Your task to perform on an android device: open chrome privacy settings Image 0: 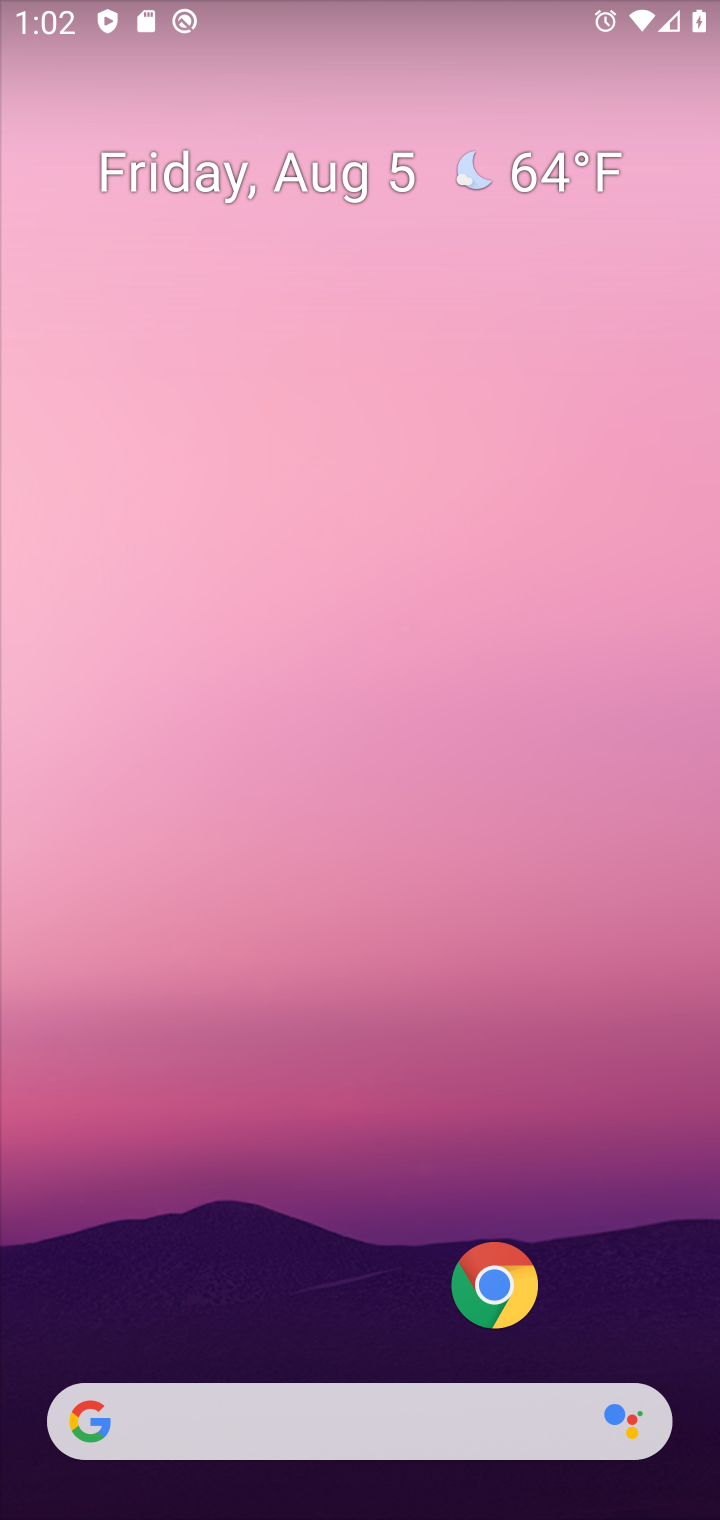
Step 0: press home button
Your task to perform on an android device: open chrome privacy settings Image 1: 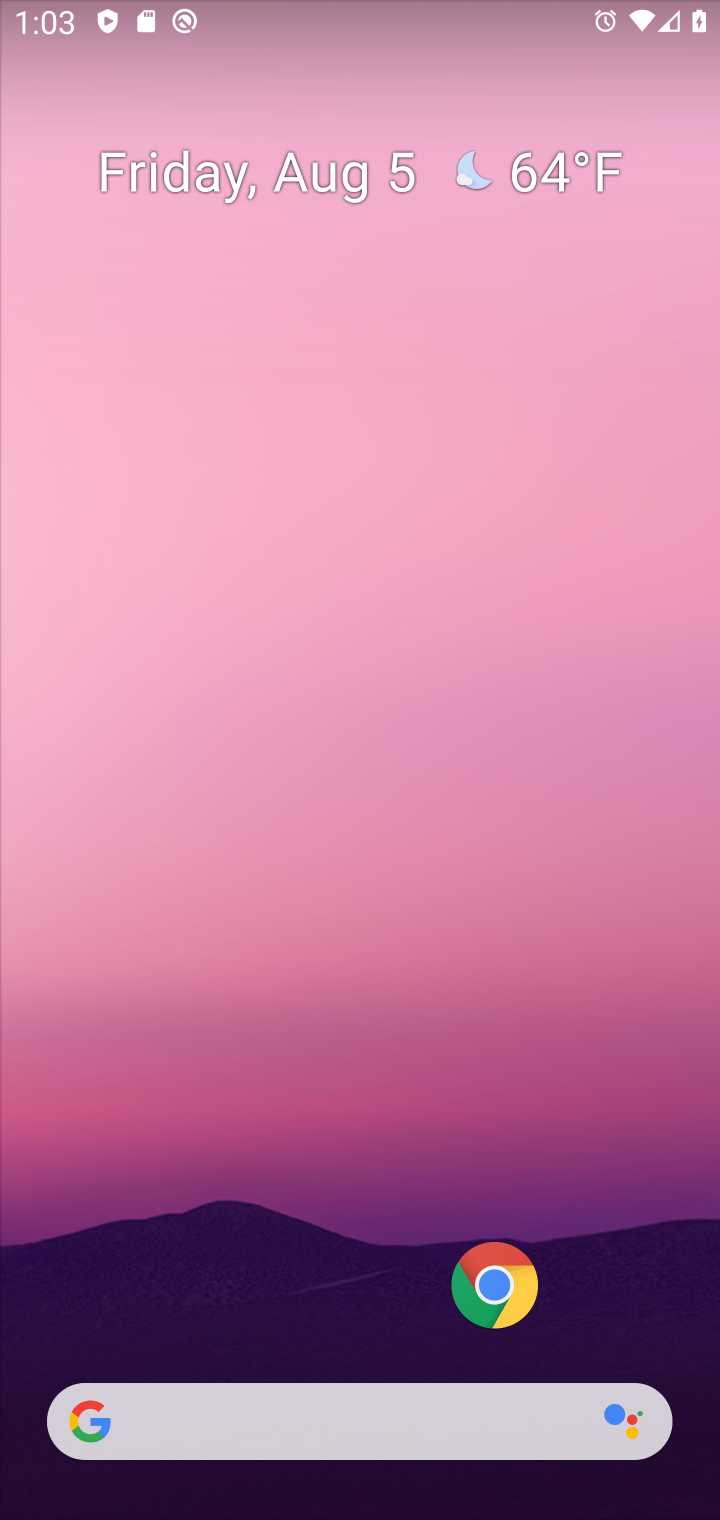
Step 1: press home button
Your task to perform on an android device: open chrome privacy settings Image 2: 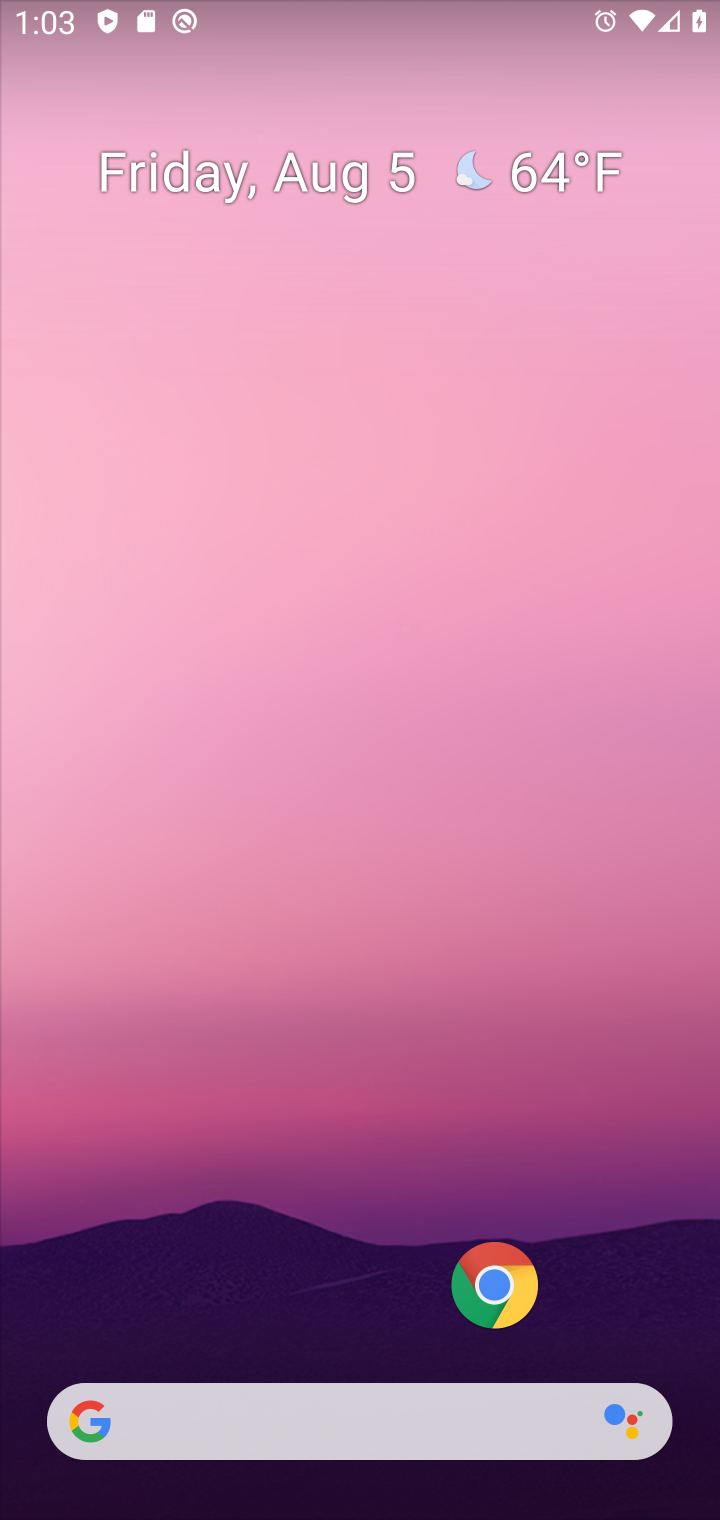
Step 2: drag from (335, 1309) to (209, 703)
Your task to perform on an android device: open chrome privacy settings Image 3: 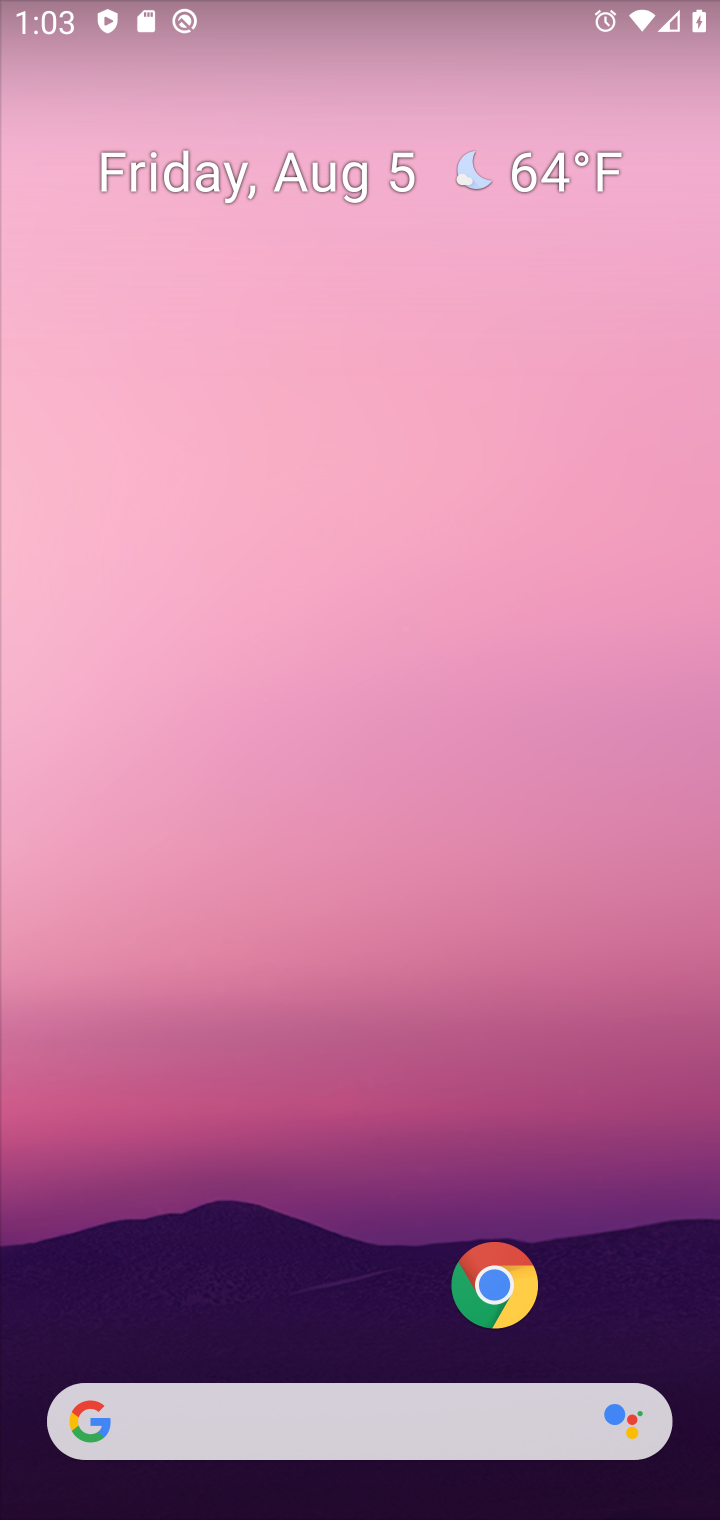
Step 3: drag from (302, 1318) to (404, 333)
Your task to perform on an android device: open chrome privacy settings Image 4: 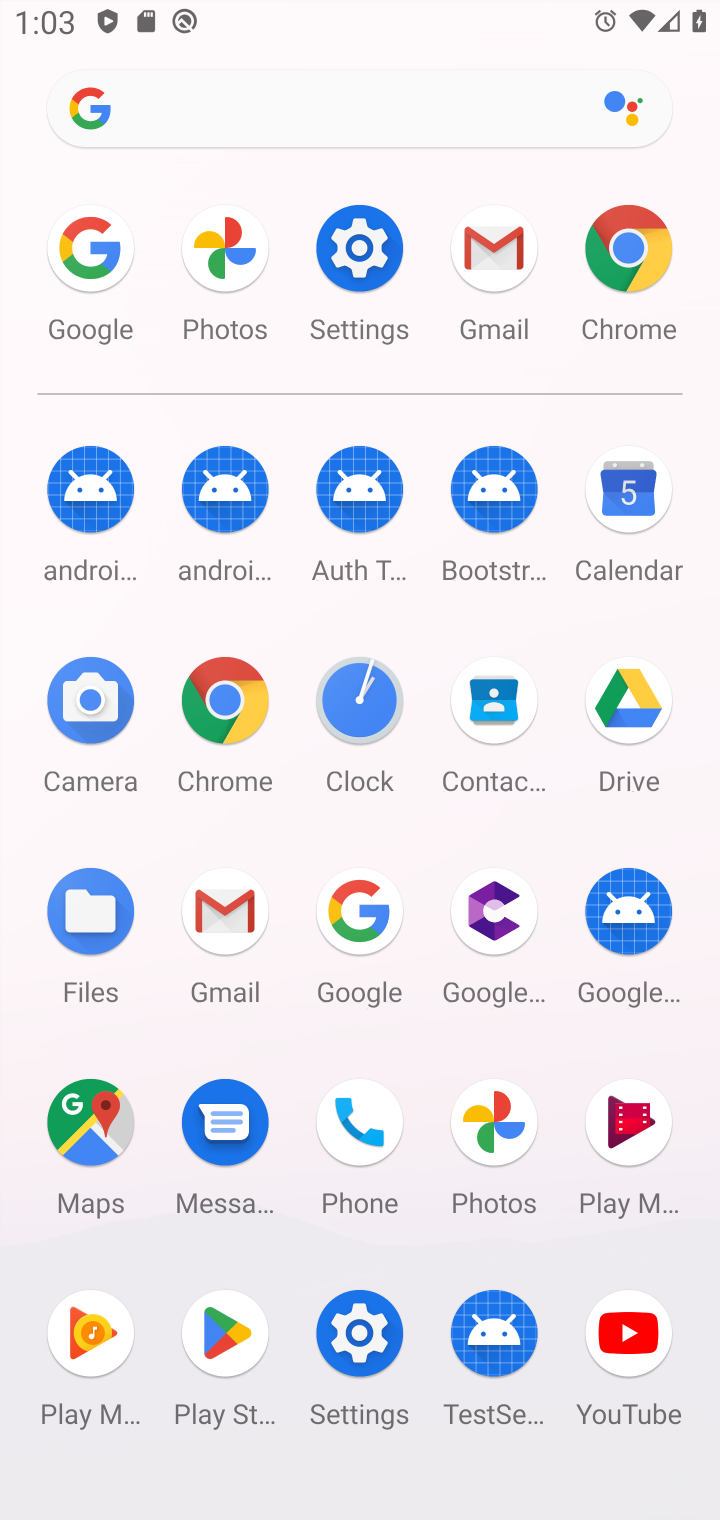
Step 4: click (629, 230)
Your task to perform on an android device: open chrome privacy settings Image 5: 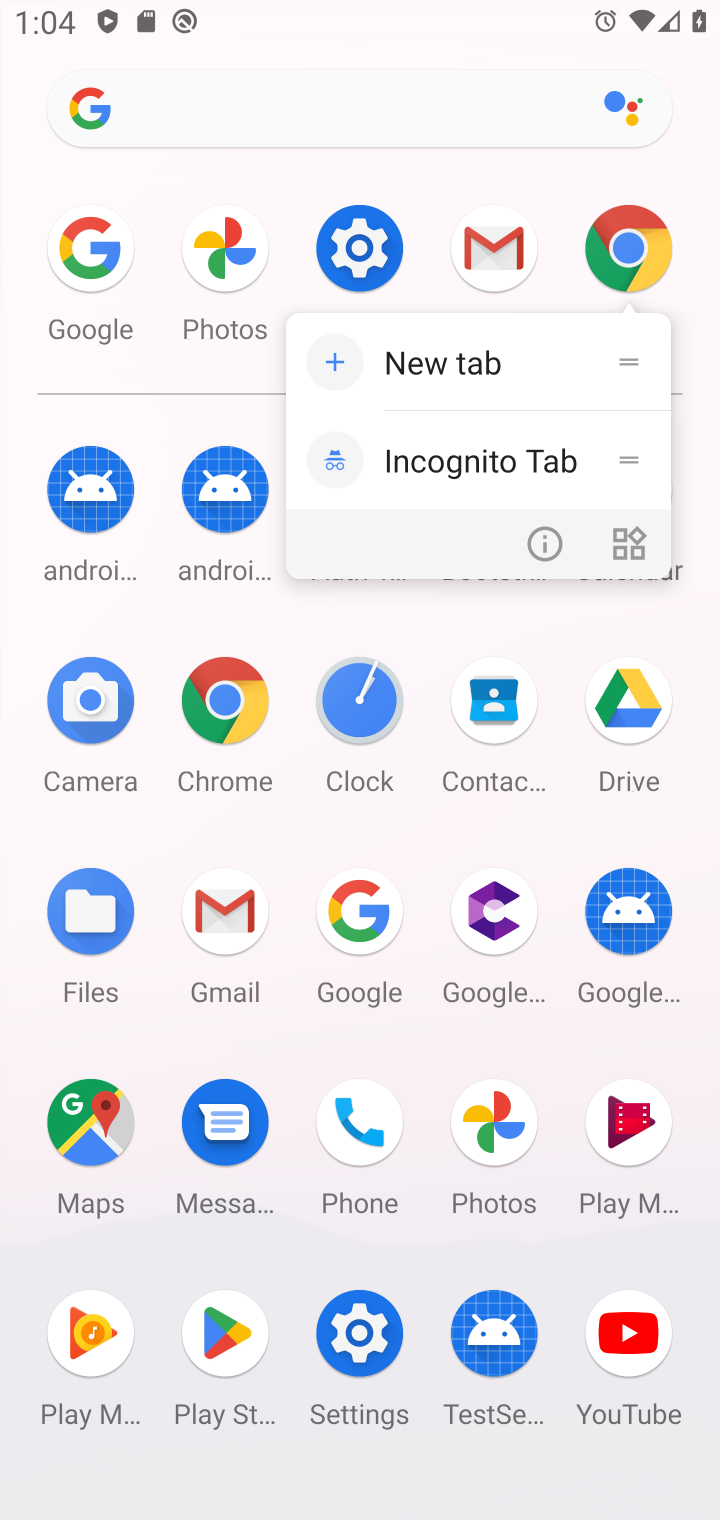
Step 5: click (619, 241)
Your task to perform on an android device: open chrome privacy settings Image 6: 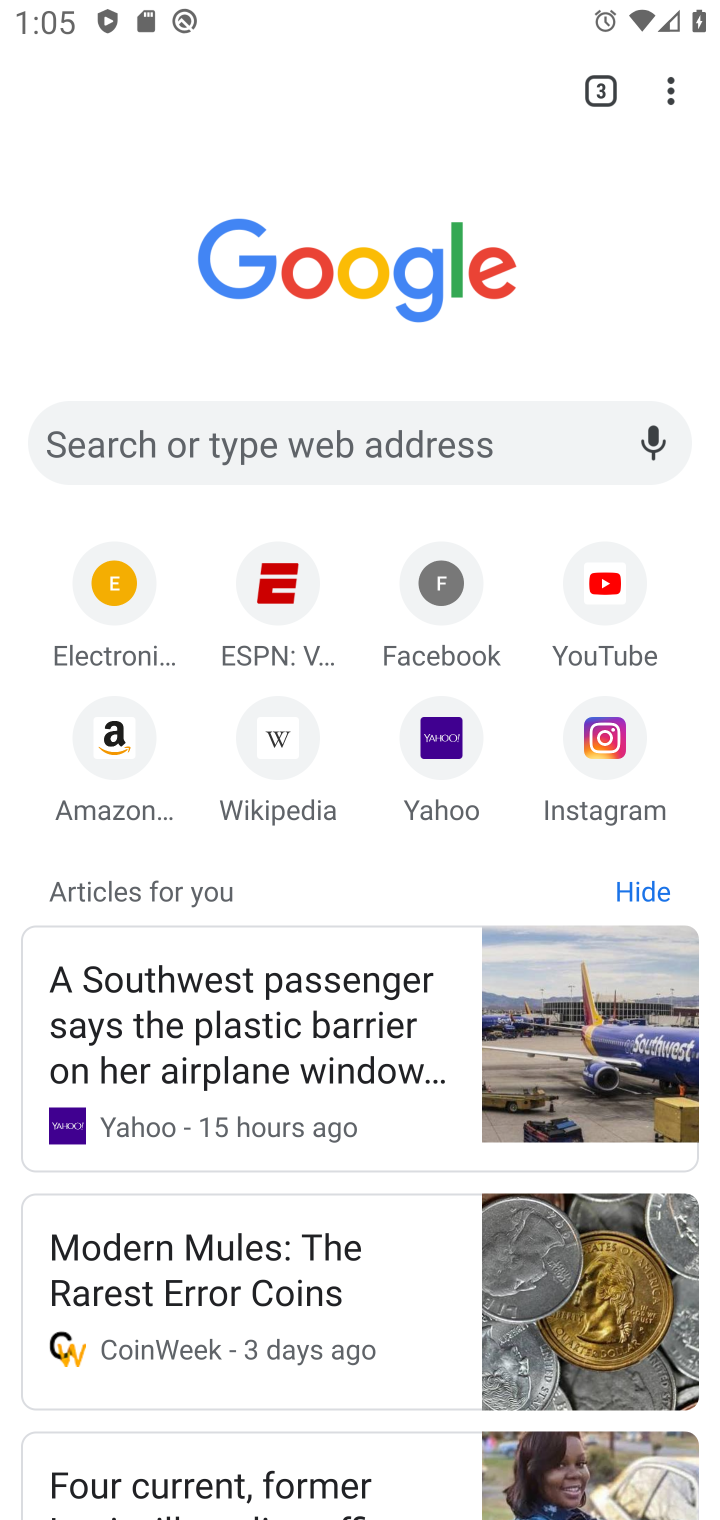
Step 6: drag from (654, 98) to (357, 876)
Your task to perform on an android device: open chrome privacy settings Image 7: 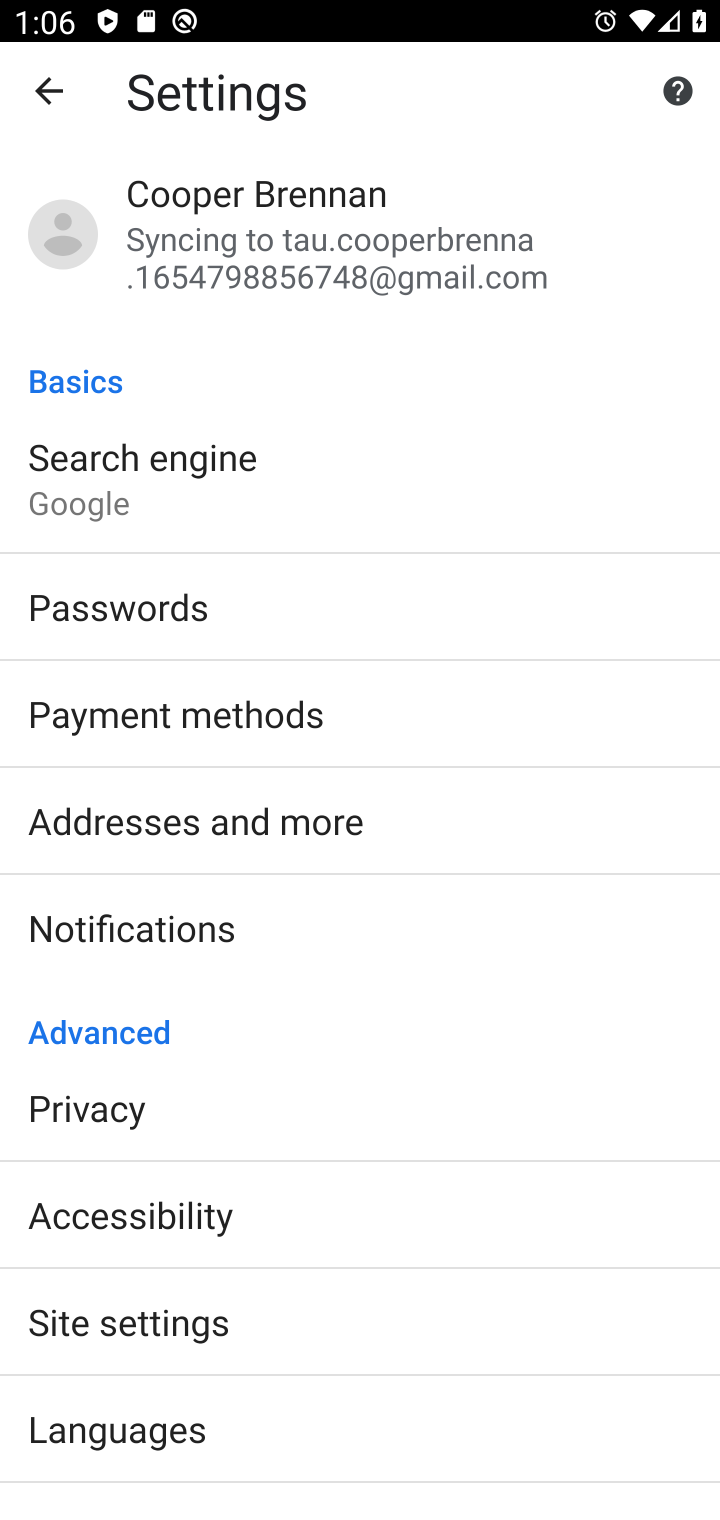
Step 7: click (125, 1101)
Your task to perform on an android device: open chrome privacy settings Image 8: 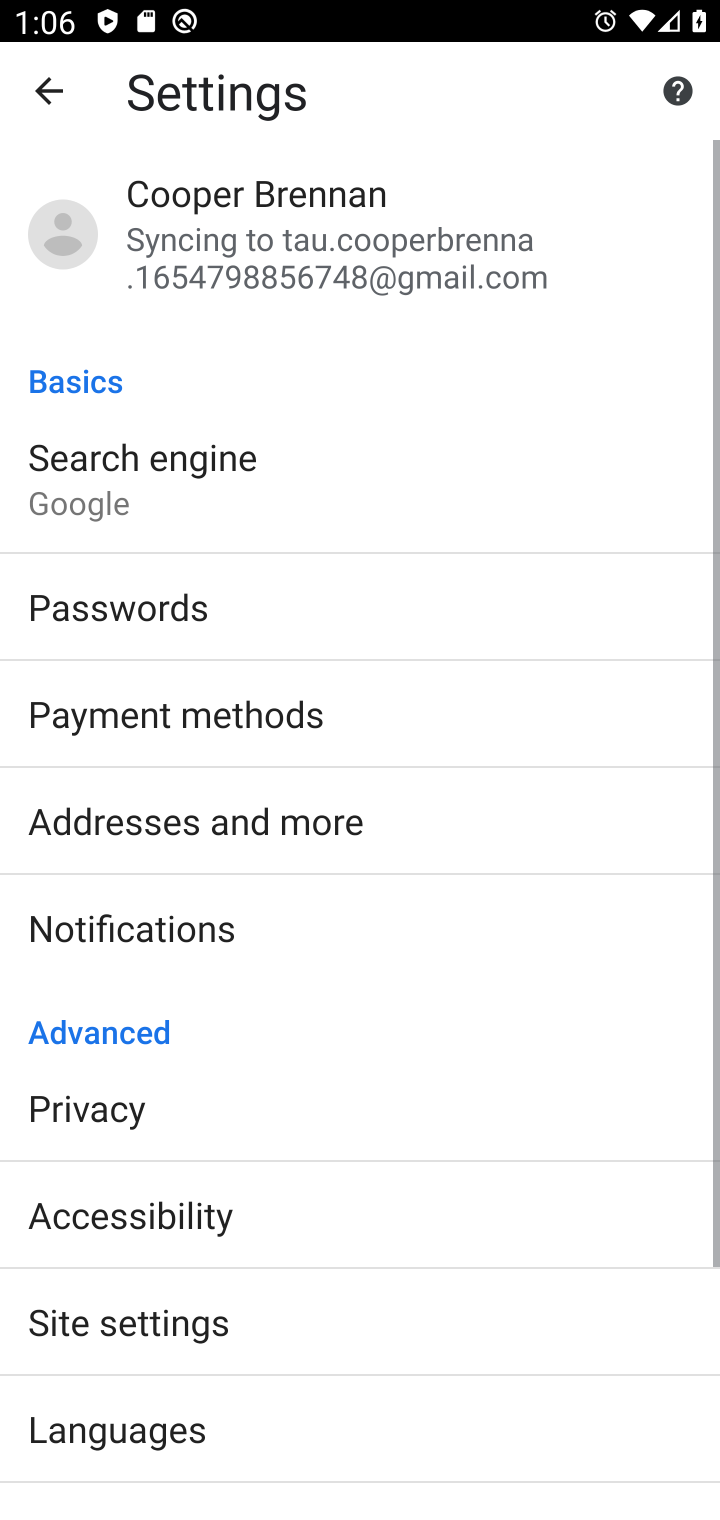
Step 8: task complete